Your task to perform on an android device: delete the emails in spam in the gmail app Image 0: 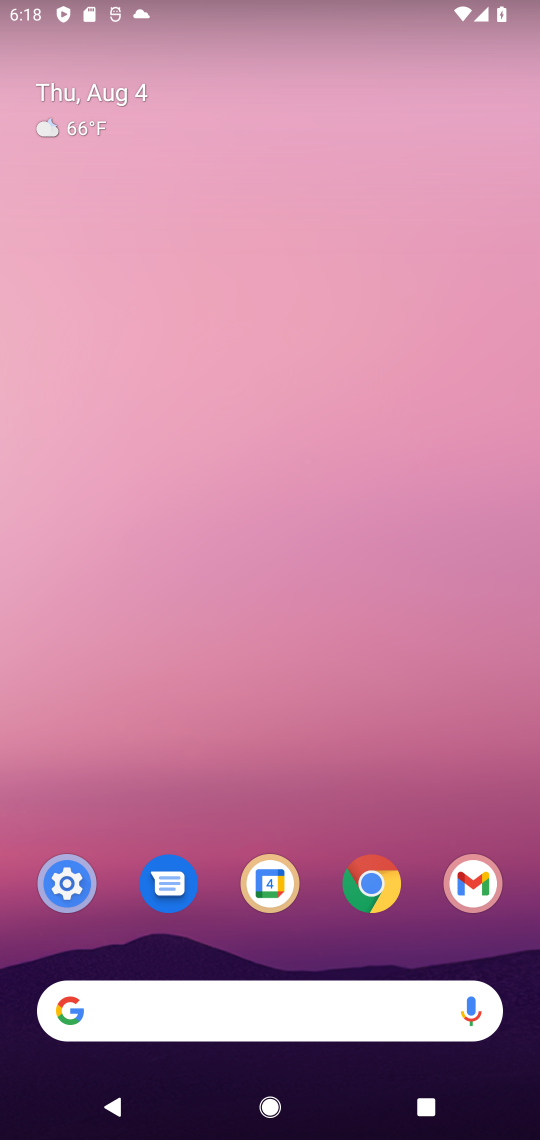
Step 0: click (461, 884)
Your task to perform on an android device: delete the emails in spam in the gmail app Image 1: 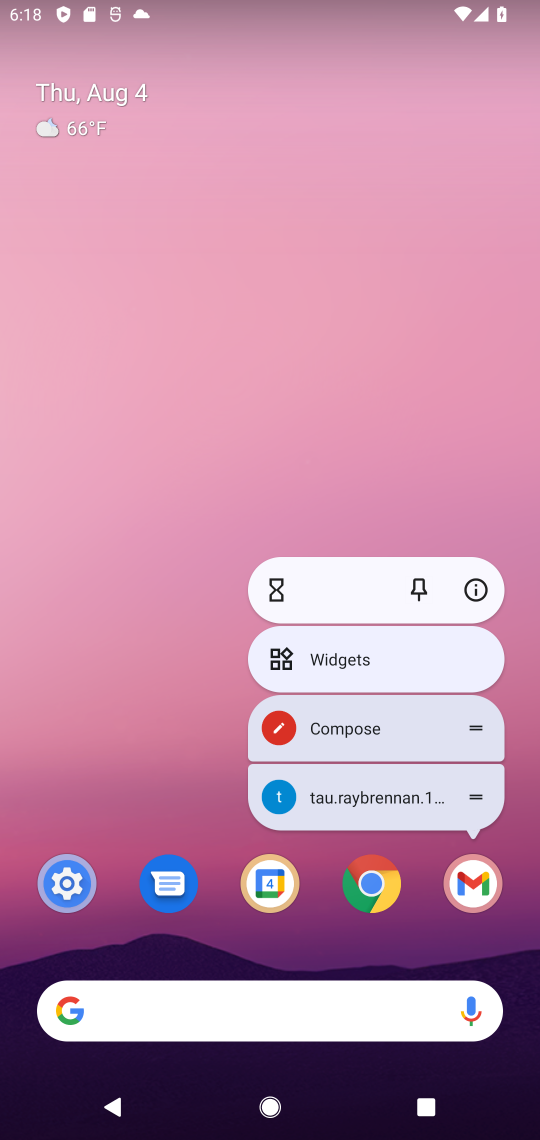
Step 1: click (461, 884)
Your task to perform on an android device: delete the emails in spam in the gmail app Image 2: 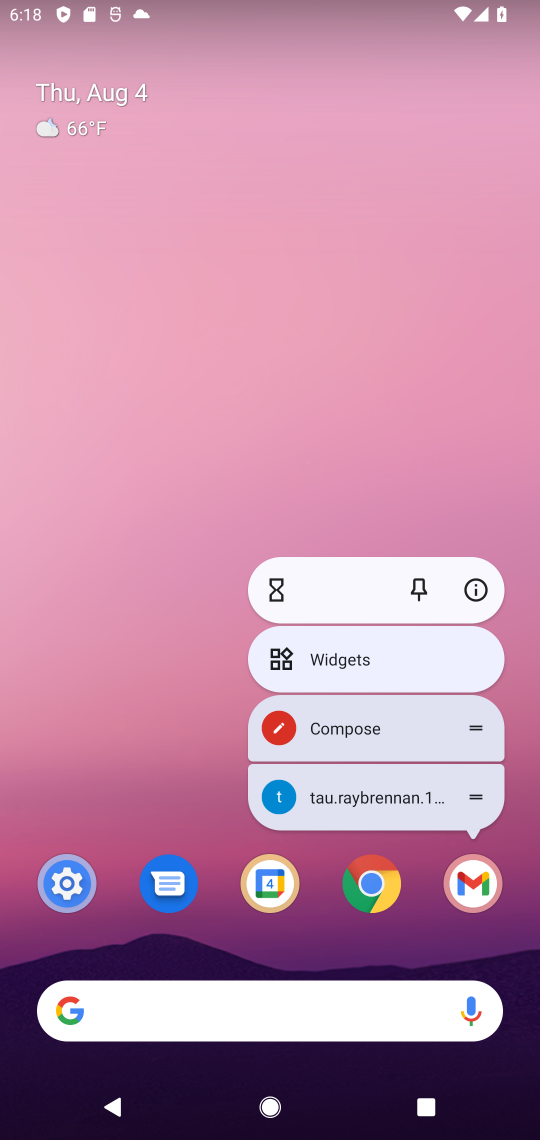
Step 2: click (461, 884)
Your task to perform on an android device: delete the emails in spam in the gmail app Image 3: 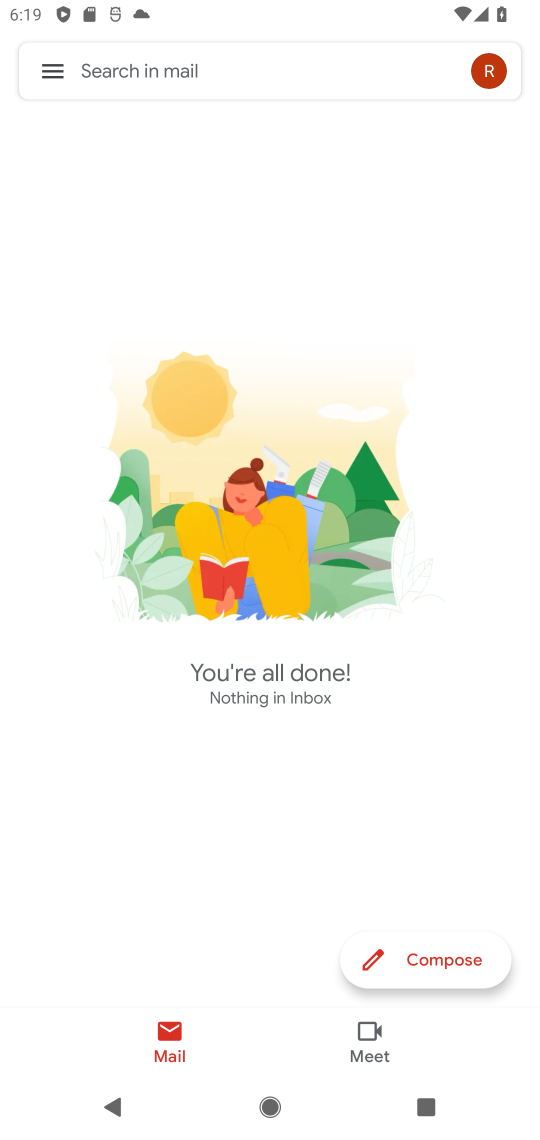
Step 3: task complete